Your task to perform on an android device: Go to battery settings Image 0: 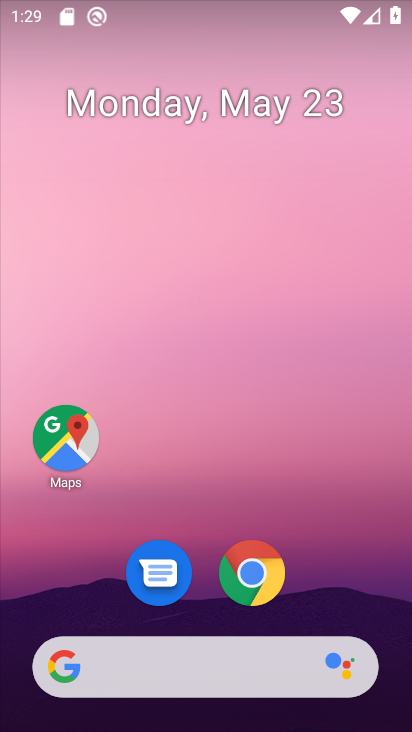
Step 0: drag from (372, 608) to (193, 6)
Your task to perform on an android device: Go to battery settings Image 1: 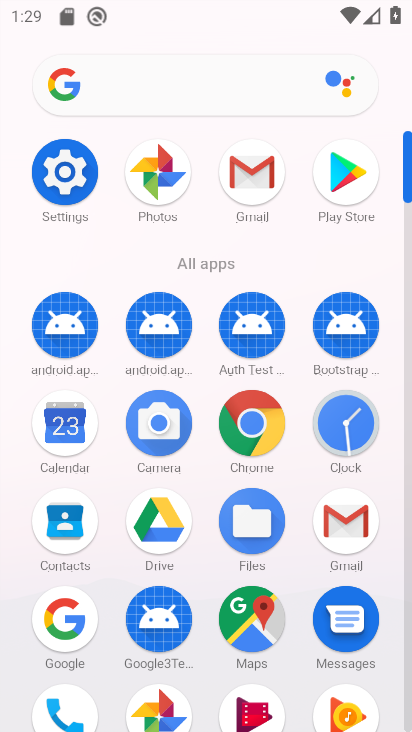
Step 1: click (54, 168)
Your task to perform on an android device: Go to battery settings Image 2: 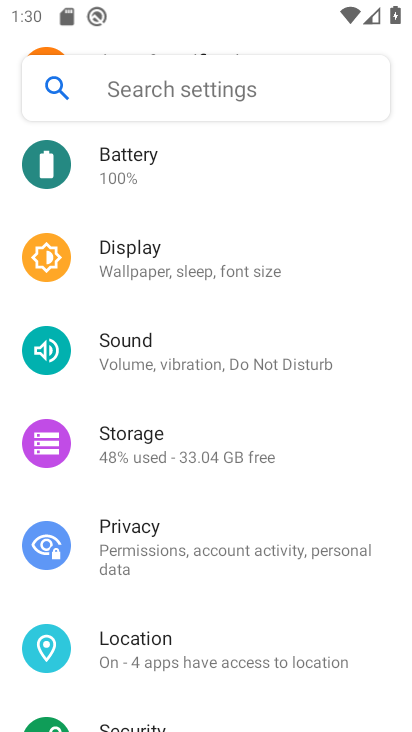
Step 2: click (234, 164)
Your task to perform on an android device: Go to battery settings Image 3: 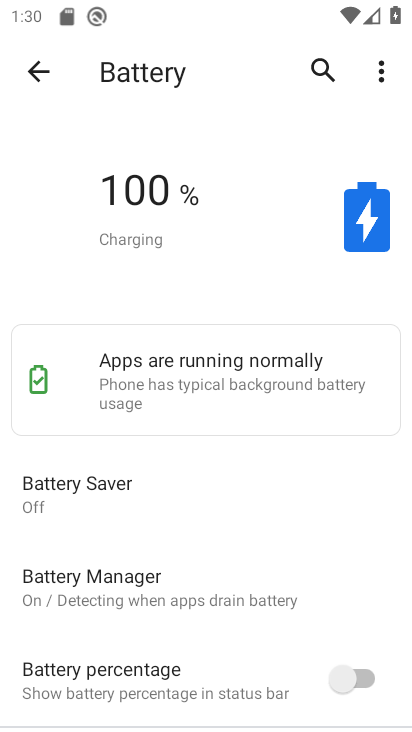
Step 3: task complete